Your task to perform on an android device: change notifications settings Image 0: 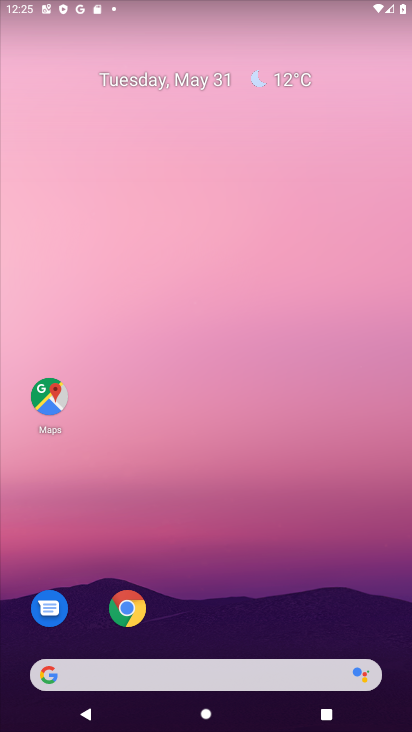
Step 0: drag from (215, 613) to (292, 2)
Your task to perform on an android device: change notifications settings Image 1: 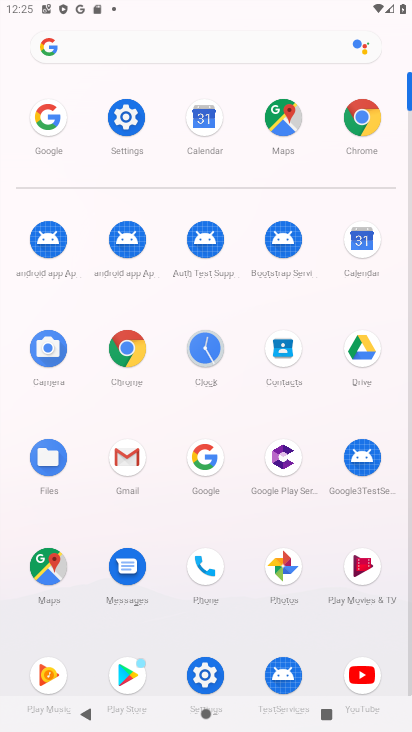
Step 1: click (129, 115)
Your task to perform on an android device: change notifications settings Image 2: 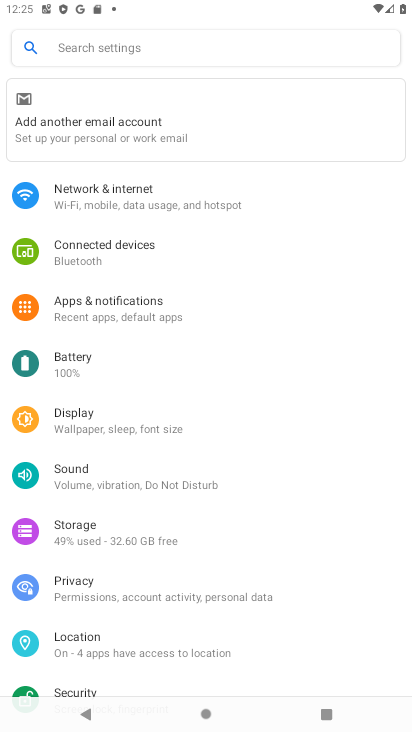
Step 2: click (134, 311)
Your task to perform on an android device: change notifications settings Image 3: 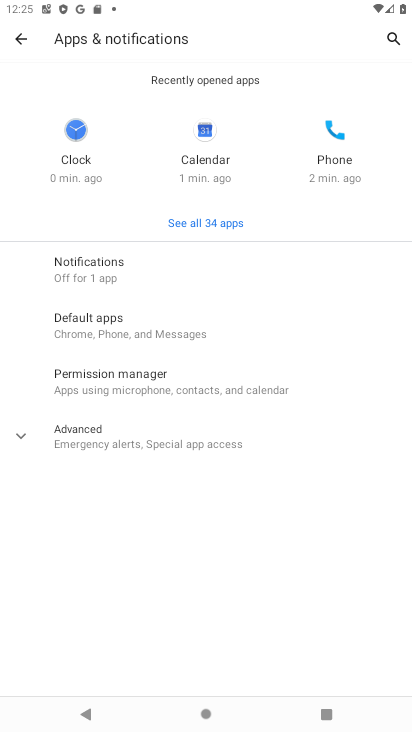
Step 3: click (101, 266)
Your task to perform on an android device: change notifications settings Image 4: 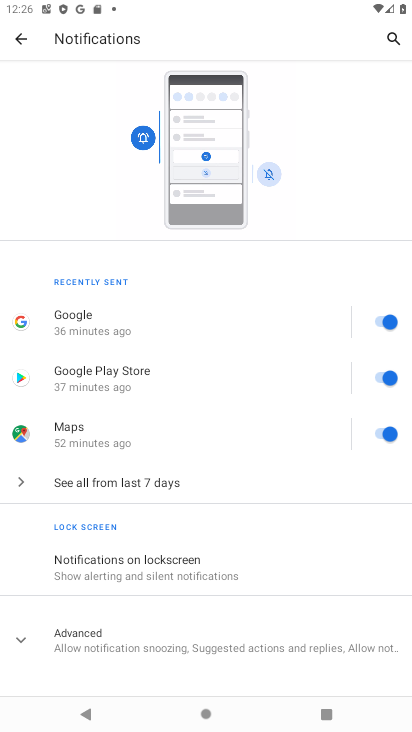
Step 4: click (89, 638)
Your task to perform on an android device: change notifications settings Image 5: 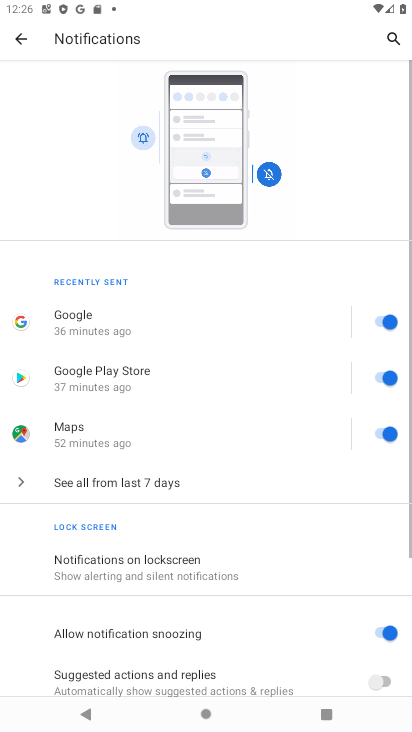
Step 5: drag from (320, 599) to (343, 174)
Your task to perform on an android device: change notifications settings Image 6: 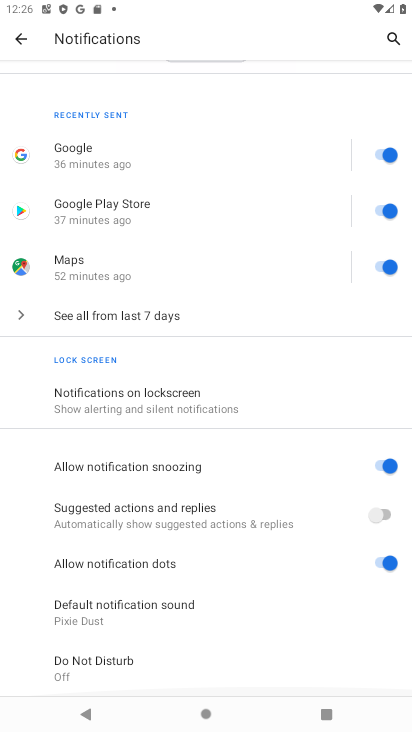
Step 6: click (380, 466)
Your task to perform on an android device: change notifications settings Image 7: 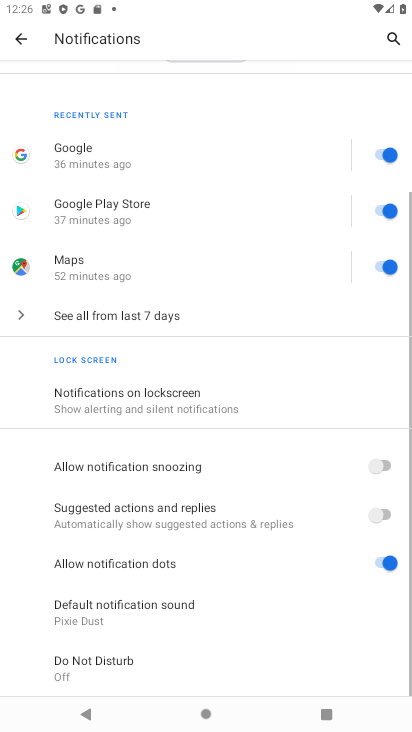
Step 7: click (376, 515)
Your task to perform on an android device: change notifications settings Image 8: 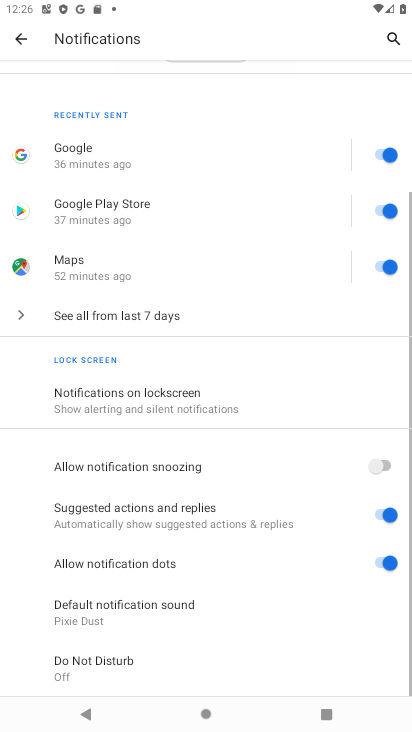
Step 8: click (387, 568)
Your task to perform on an android device: change notifications settings Image 9: 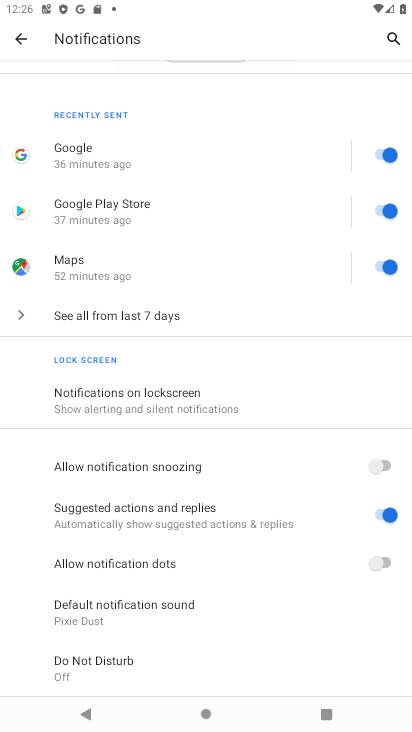
Step 9: task complete